Your task to perform on an android device: turn on priority inbox in the gmail app Image 0: 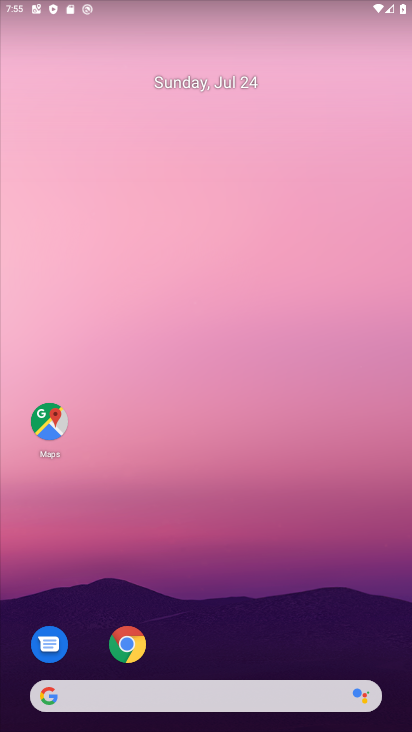
Step 0: drag from (368, 621) to (274, 14)
Your task to perform on an android device: turn on priority inbox in the gmail app Image 1: 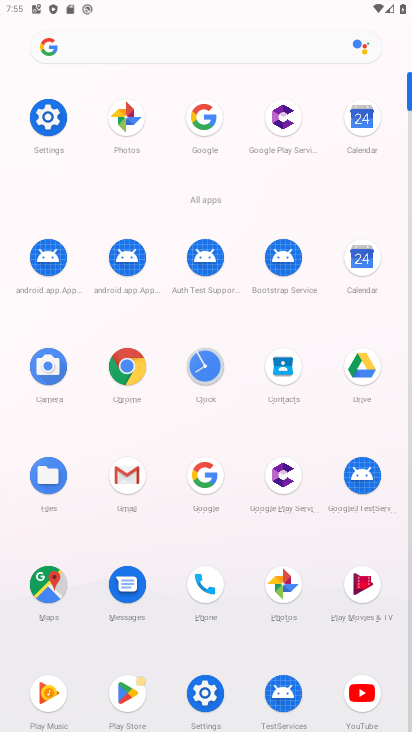
Step 1: click (123, 478)
Your task to perform on an android device: turn on priority inbox in the gmail app Image 2: 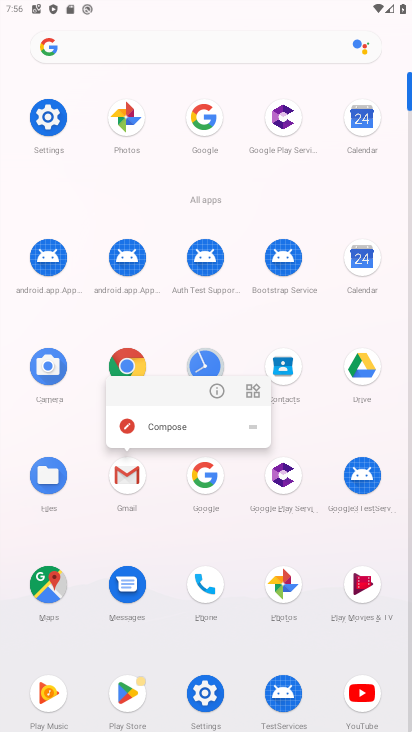
Step 2: click (130, 496)
Your task to perform on an android device: turn on priority inbox in the gmail app Image 3: 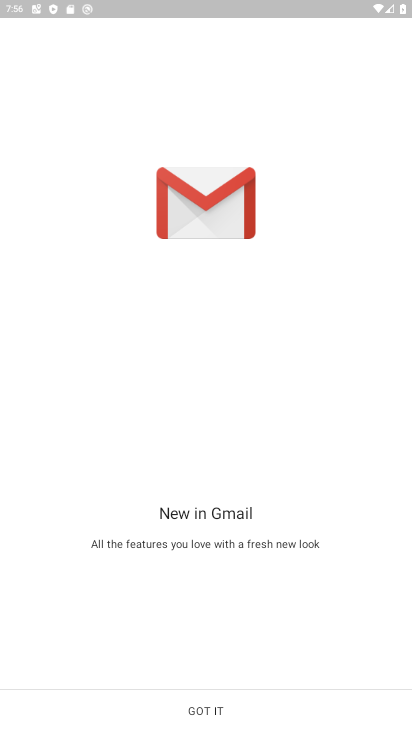
Step 3: click (269, 709)
Your task to perform on an android device: turn on priority inbox in the gmail app Image 4: 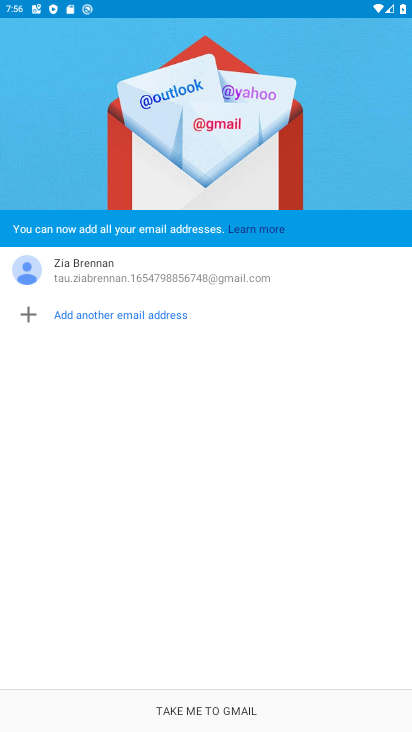
Step 4: click (230, 705)
Your task to perform on an android device: turn on priority inbox in the gmail app Image 5: 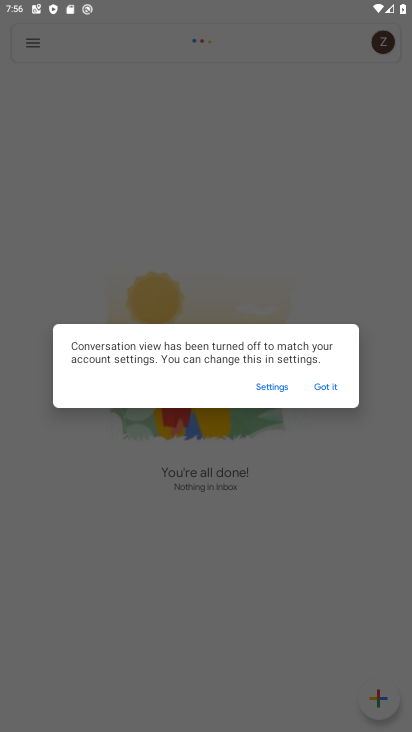
Step 5: click (337, 387)
Your task to perform on an android device: turn on priority inbox in the gmail app Image 6: 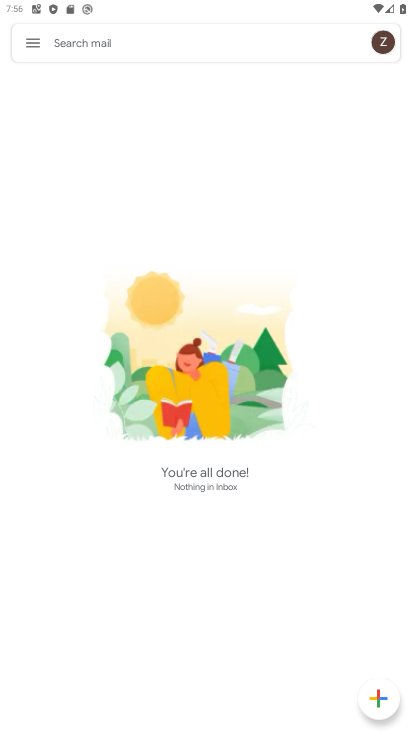
Step 6: click (29, 50)
Your task to perform on an android device: turn on priority inbox in the gmail app Image 7: 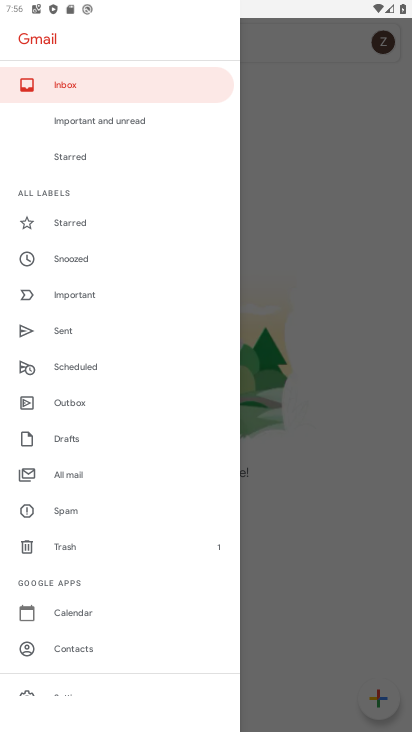
Step 7: drag from (131, 673) to (112, 478)
Your task to perform on an android device: turn on priority inbox in the gmail app Image 8: 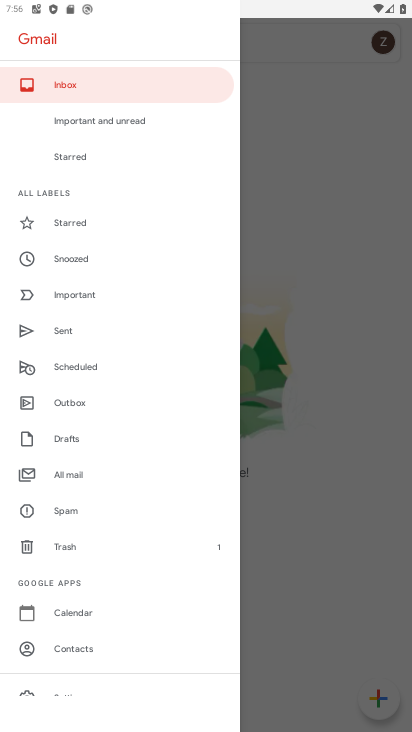
Step 8: drag from (157, 657) to (141, 443)
Your task to perform on an android device: turn on priority inbox in the gmail app Image 9: 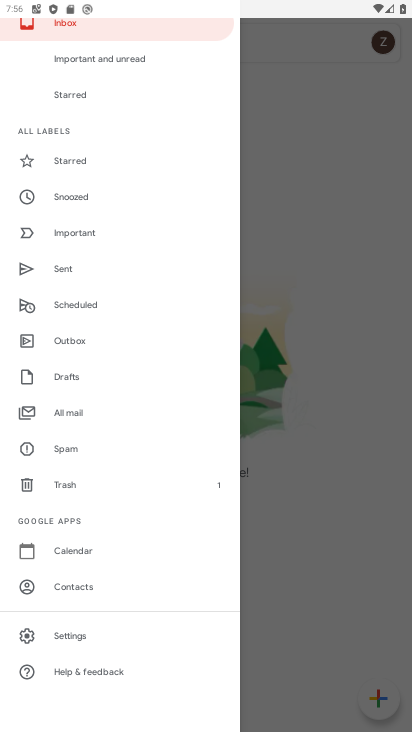
Step 9: click (72, 637)
Your task to perform on an android device: turn on priority inbox in the gmail app Image 10: 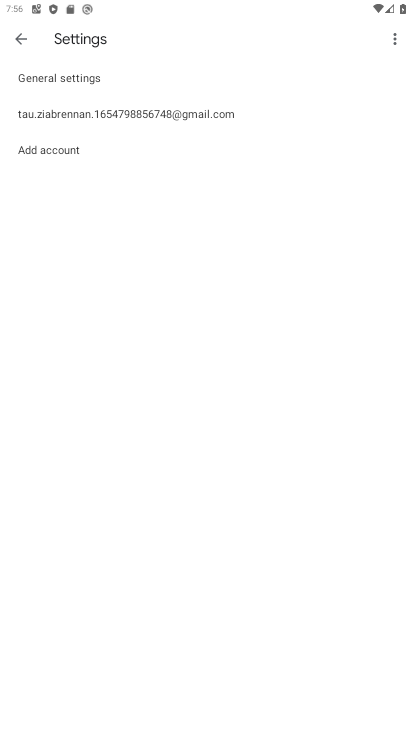
Step 10: click (237, 106)
Your task to perform on an android device: turn on priority inbox in the gmail app Image 11: 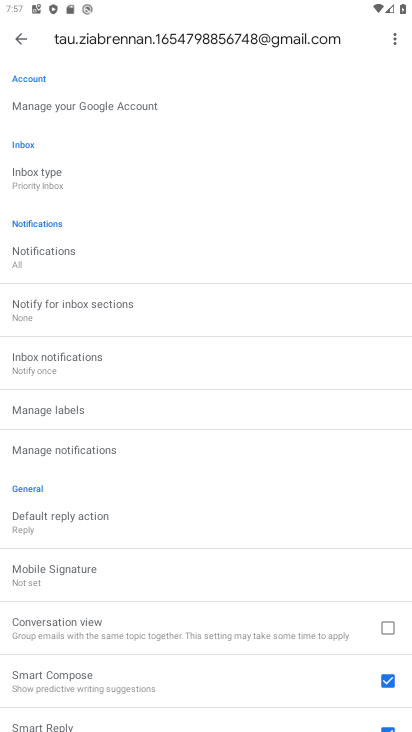
Step 11: task complete